Your task to perform on an android device: delete the emails in spam in the gmail app Image 0: 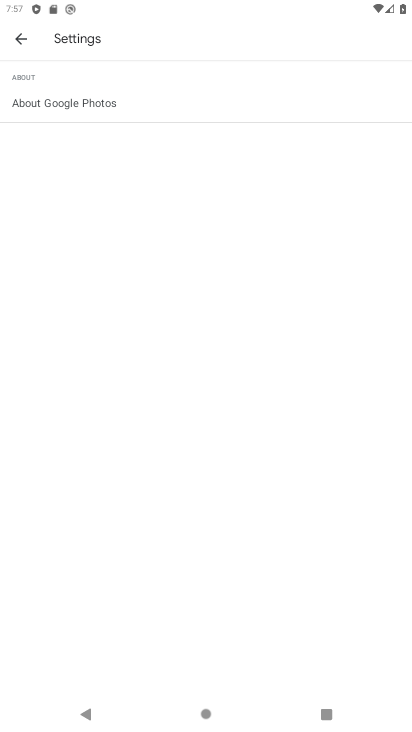
Step 0: press home button
Your task to perform on an android device: delete the emails in spam in the gmail app Image 1: 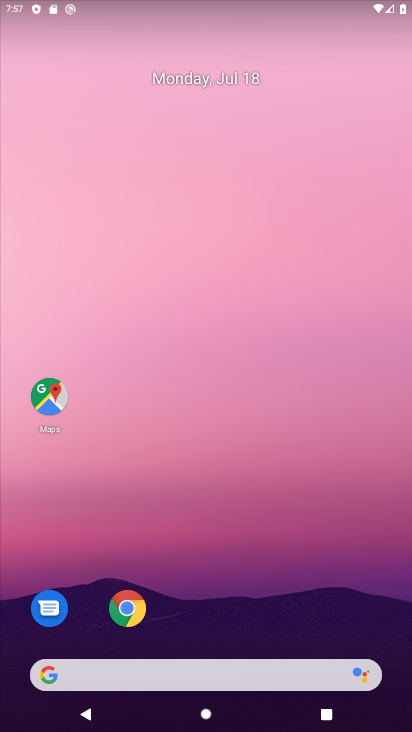
Step 1: drag from (13, 713) to (273, 59)
Your task to perform on an android device: delete the emails in spam in the gmail app Image 2: 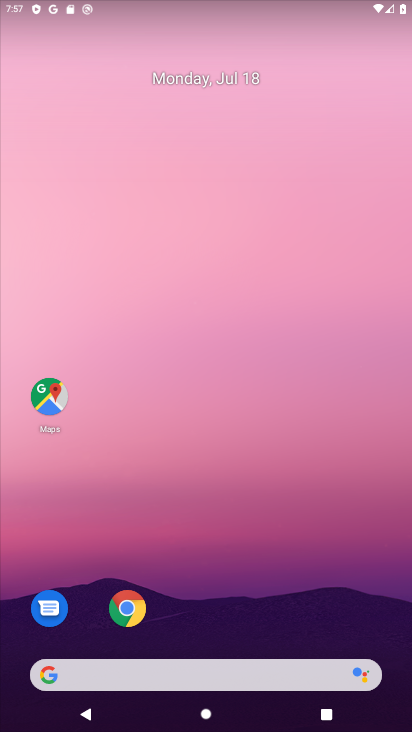
Step 2: drag from (71, 568) to (193, 144)
Your task to perform on an android device: delete the emails in spam in the gmail app Image 3: 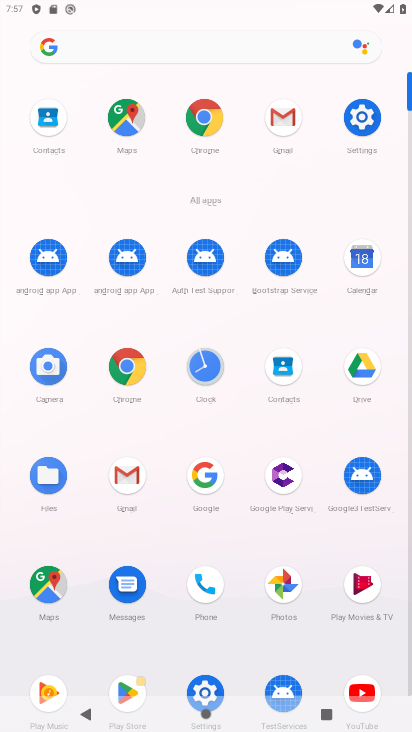
Step 3: click (125, 470)
Your task to perform on an android device: delete the emails in spam in the gmail app Image 4: 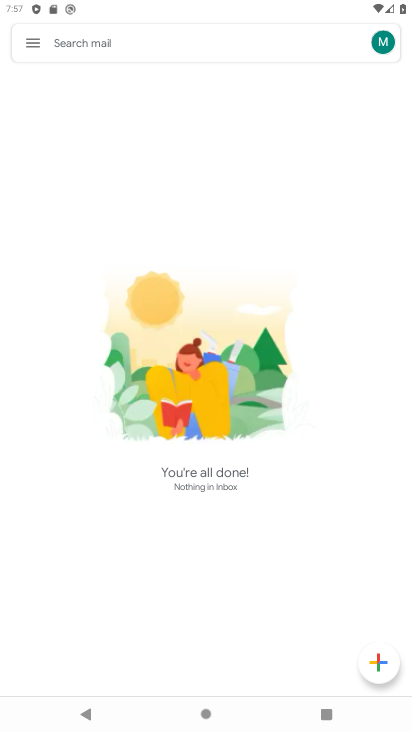
Step 4: click (25, 43)
Your task to perform on an android device: delete the emails in spam in the gmail app Image 5: 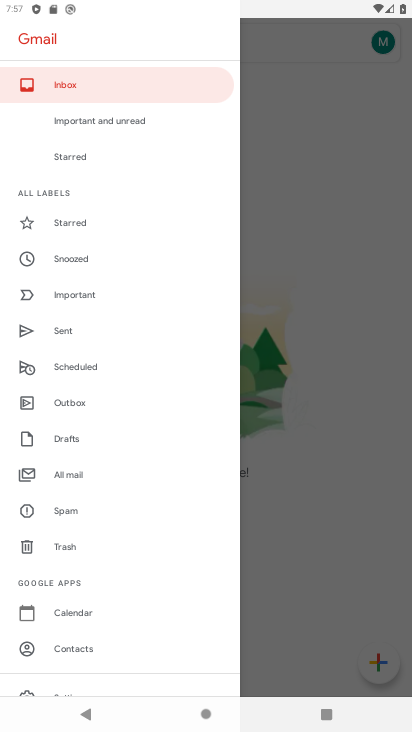
Step 5: click (60, 509)
Your task to perform on an android device: delete the emails in spam in the gmail app Image 6: 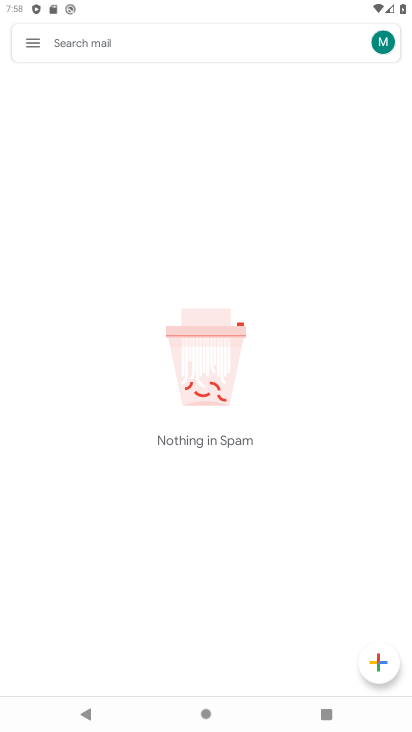
Step 6: task complete